Your task to perform on an android device: Check the news Image 0: 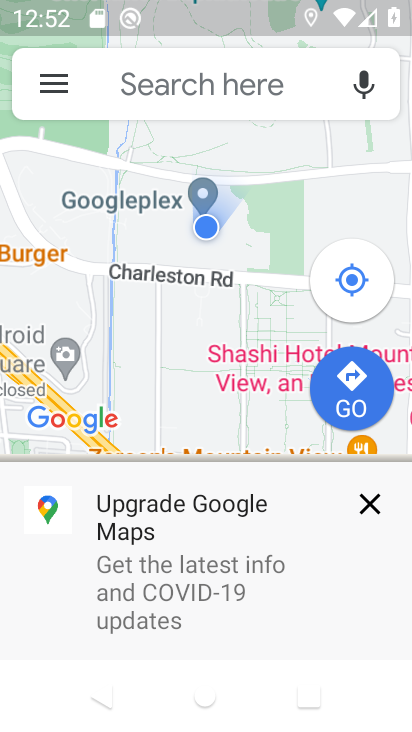
Step 0: click (362, 505)
Your task to perform on an android device: Check the news Image 1: 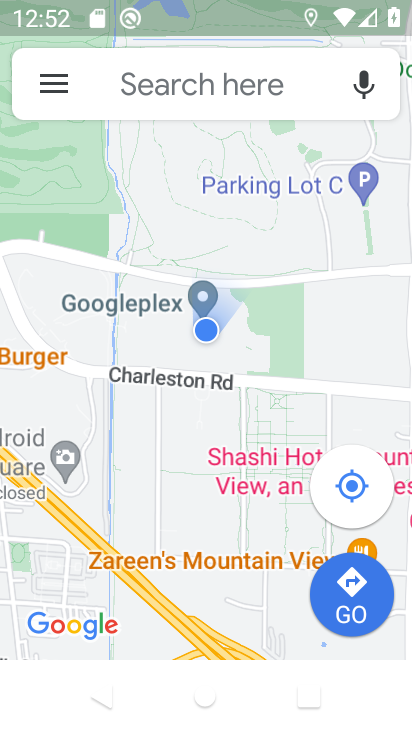
Step 1: press home button
Your task to perform on an android device: Check the news Image 2: 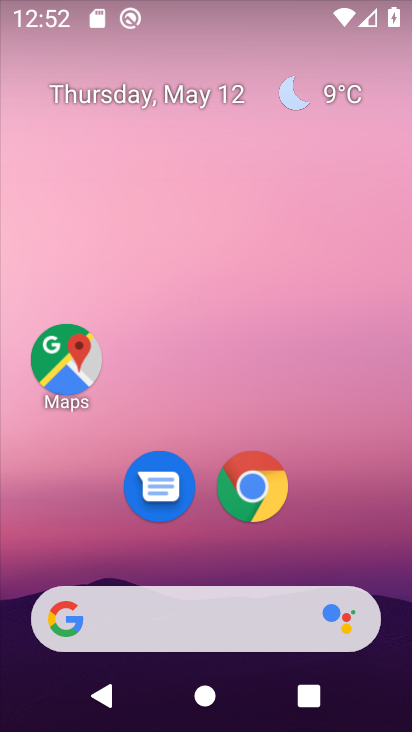
Step 2: drag from (221, 574) to (290, 180)
Your task to perform on an android device: Check the news Image 3: 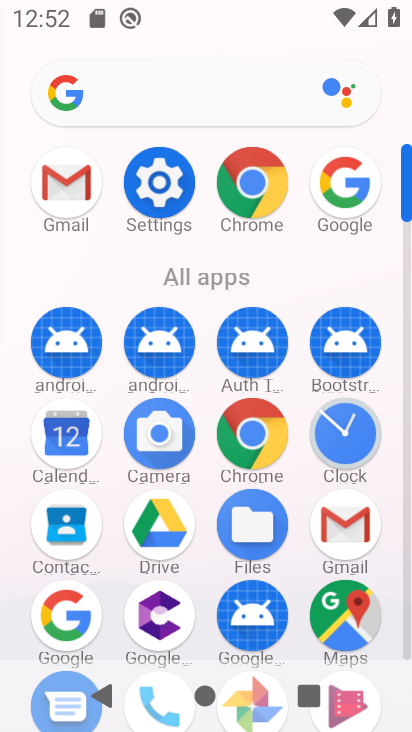
Step 3: click (48, 617)
Your task to perform on an android device: Check the news Image 4: 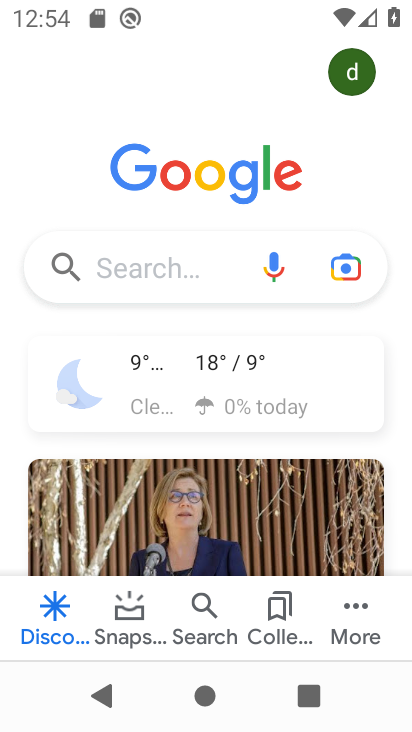
Step 4: click (129, 270)
Your task to perform on an android device: Check the news Image 5: 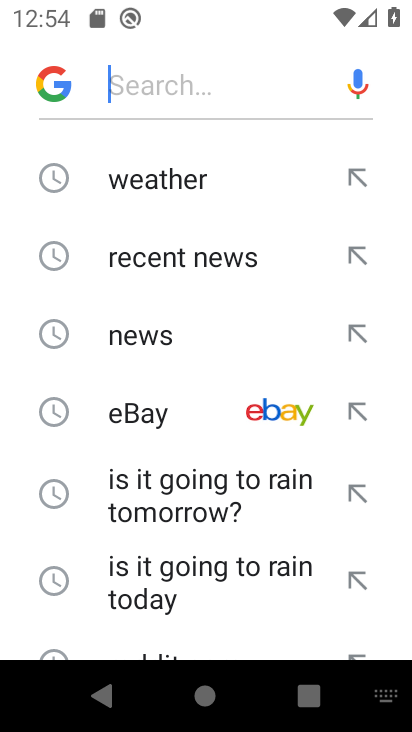
Step 5: click (120, 335)
Your task to perform on an android device: Check the news Image 6: 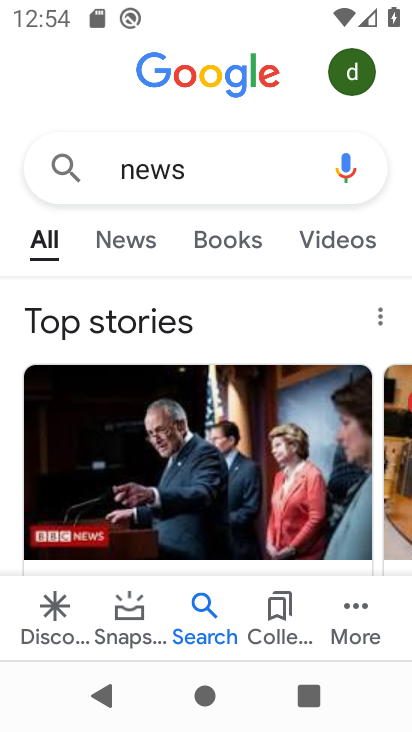
Step 6: task complete